Your task to perform on an android device: change notification settings in the gmail app Image 0: 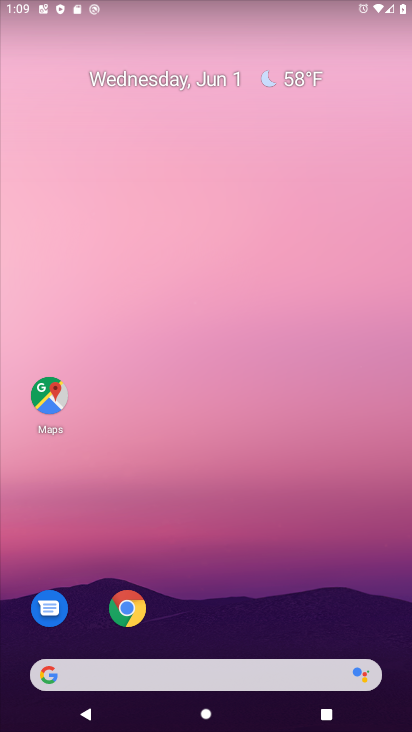
Step 0: drag from (314, 558) to (364, 102)
Your task to perform on an android device: change notification settings in the gmail app Image 1: 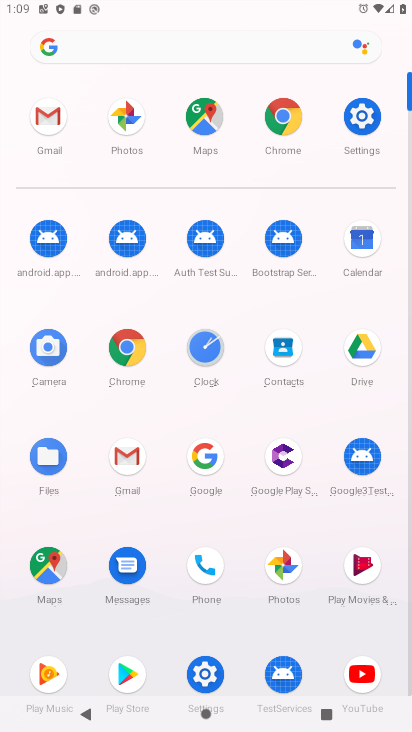
Step 1: click (49, 117)
Your task to perform on an android device: change notification settings in the gmail app Image 2: 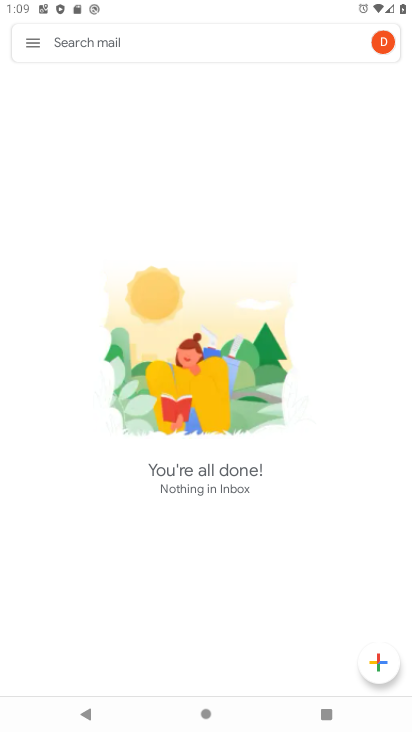
Step 2: click (31, 40)
Your task to perform on an android device: change notification settings in the gmail app Image 3: 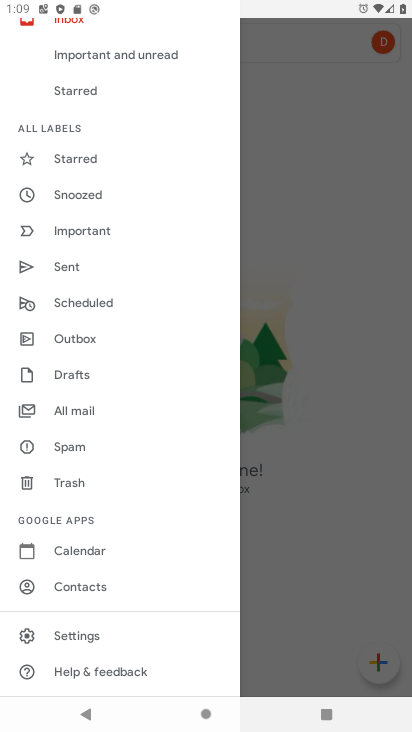
Step 3: click (123, 625)
Your task to perform on an android device: change notification settings in the gmail app Image 4: 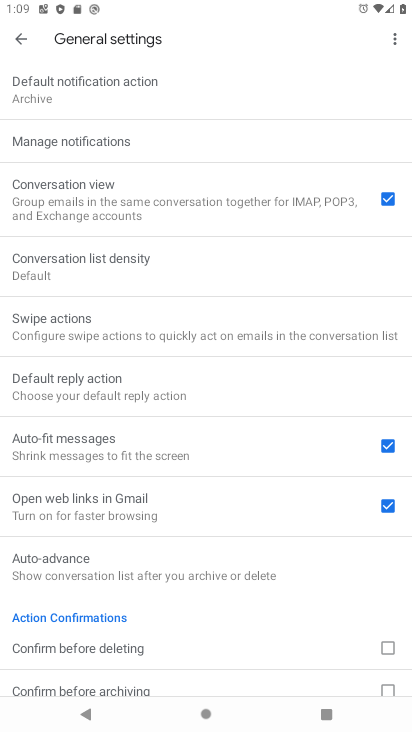
Step 4: click (107, 136)
Your task to perform on an android device: change notification settings in the gmail app Image 5: 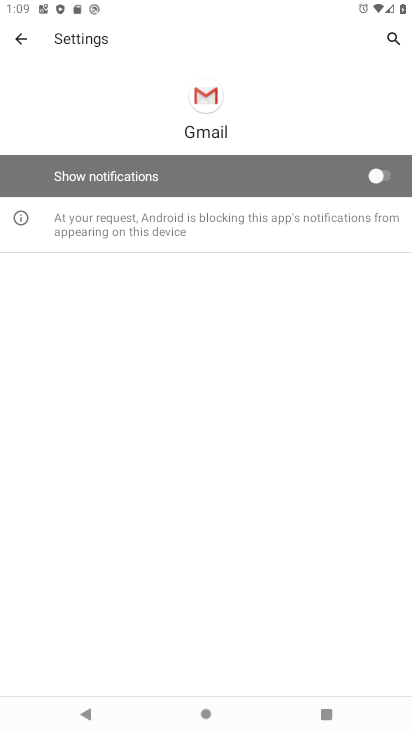
Step 5: click (364, 174)
Your task to perform on an android device: change notification settings in the gmail app Image 6: 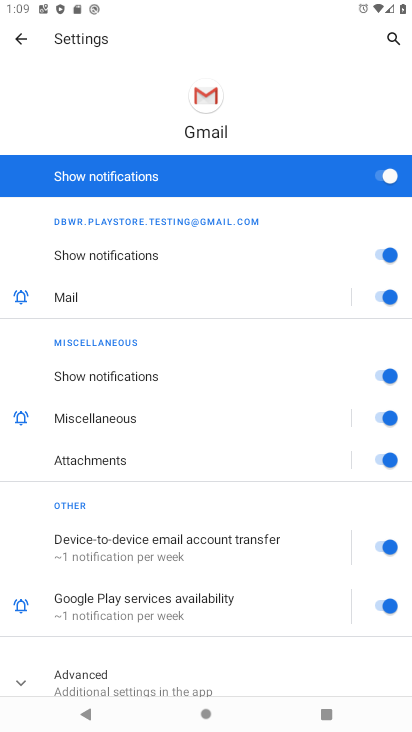
Step 6: task complete